Your task to perform on an android device: Search for sushi restaurants on Maps Image 0: 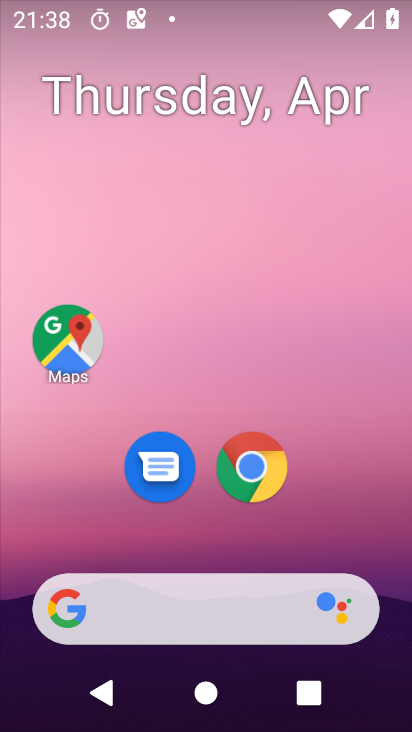
Step 0: drag from (203, 546) to (154, 91)
Your task to perform on an android device: Search for sushi restaurants on Maps Image 1: 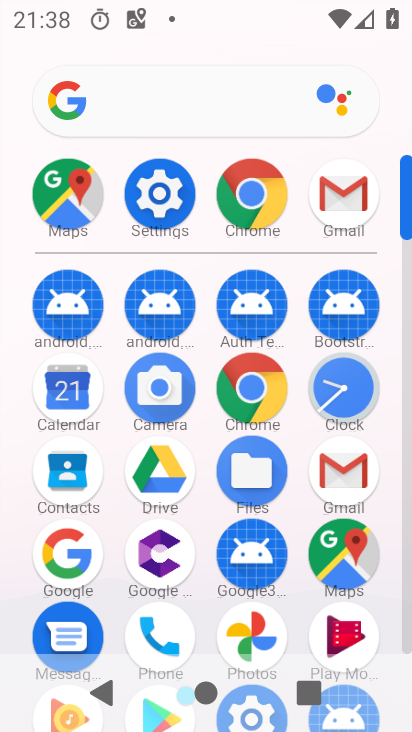
Step 1: click (78, 200)
Your task to perform on an android device: Search for sushi restaurants on Maps Image 2: 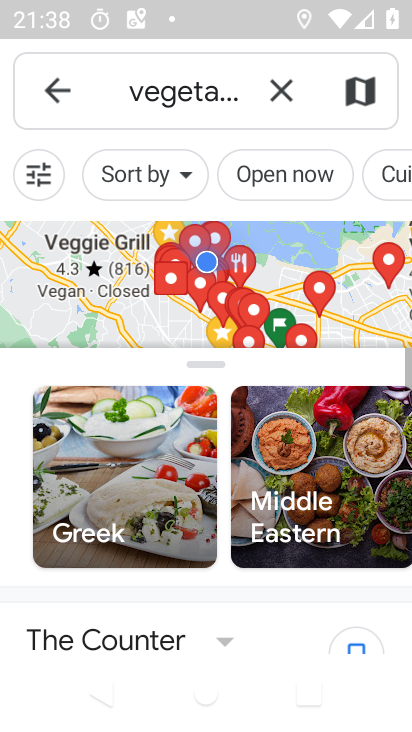
Step 2: click (63, 108)
Your task to perform on an android device: Search for sushi restaurants on Maps Image 3: 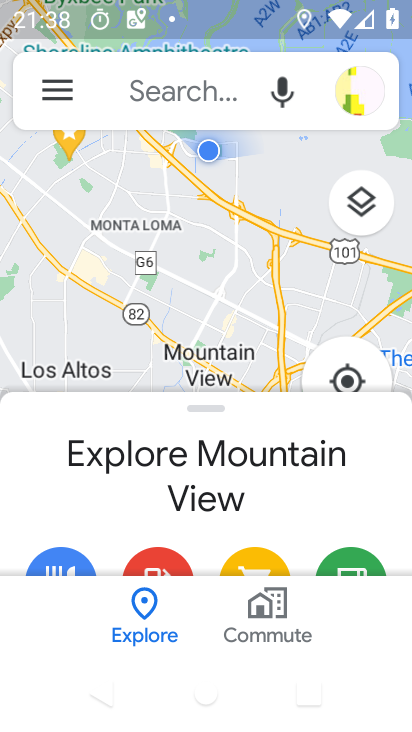
Step 3: click (155, 95)
Your task to perform on an android device: Search for sushi restaurants on Maps Image 4: 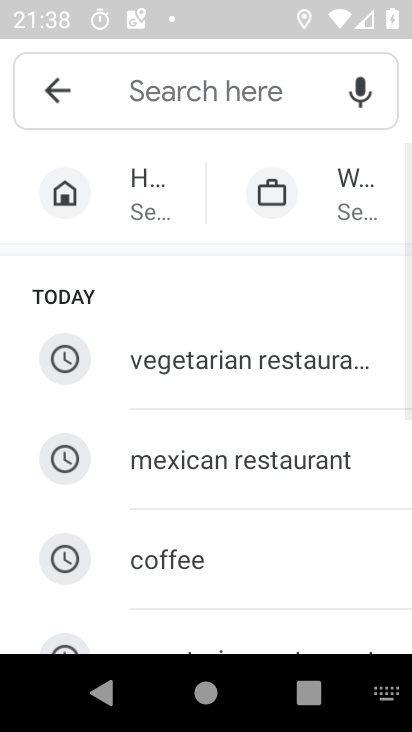
Step 4: drag from (181, 474) to (157, 27)
Your task to perform on an android device: Search for sushi restaurants on Maps Image 5: 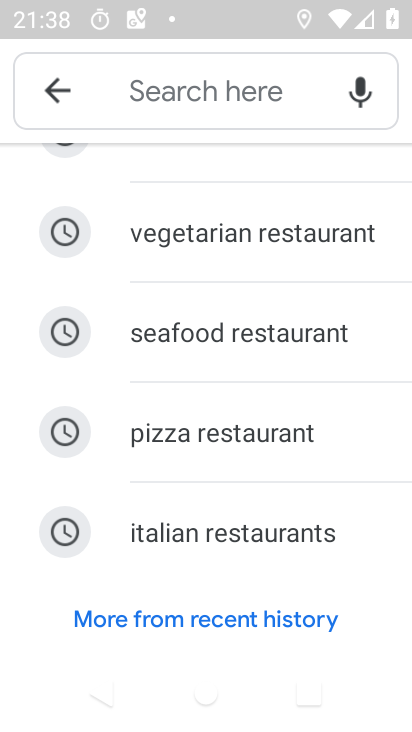
Step 5: click (197, 81)
Your task to perform on an android device: Search for sushi restaurants on Maps Image 6: 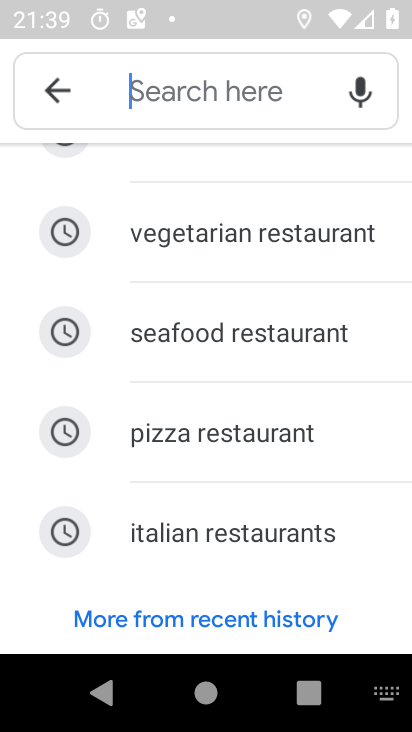
Step 6: type "sushi restuarant"
Your task to perform on an android device: Search for sushi restaurants on Maps Image 7: 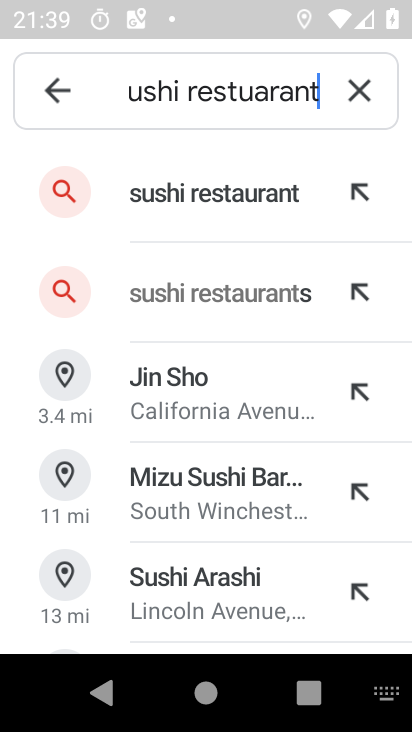
Step 7: click (183, 220)
Your task to perform on an android device: Search for sushi restaurants on Maps Image 8: 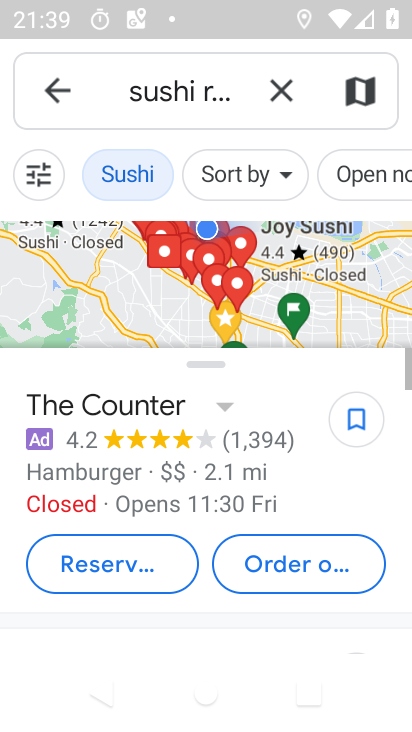
Step 8: task complete